Your task to perform on an android device: open the mobile data screen to see how much data has been used Image 0: 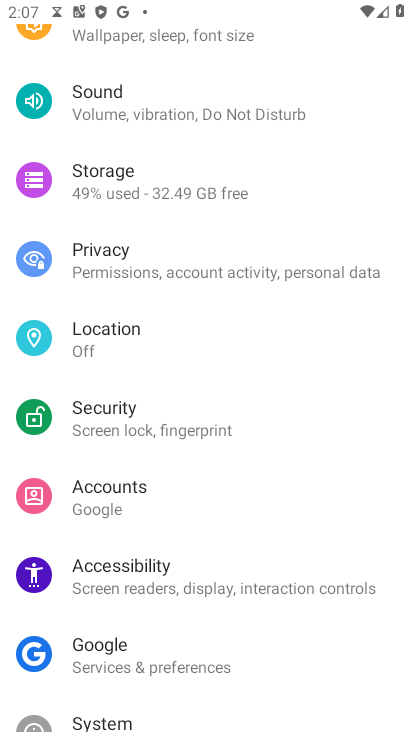
Step 0: drag from (159, 232) to (231, 589)
Your task to perform on an android device: open the mobile data screen to see how much data has been used Image 1: 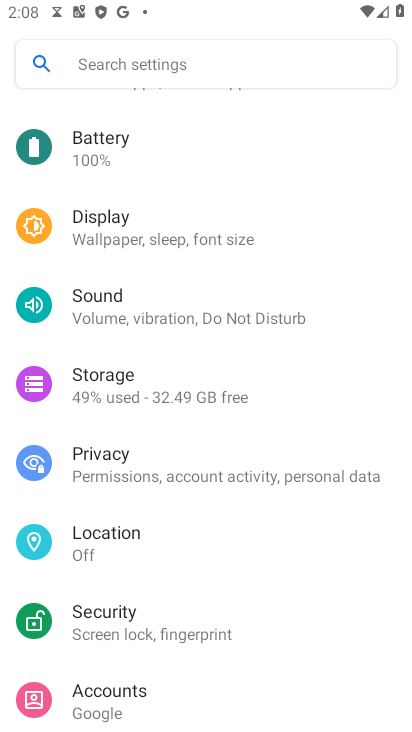
Step 1: drag from (169, 212) to (216, 565)
Your task to perform on an android device: open the mobile data screen to see how much data has been used Image 2: 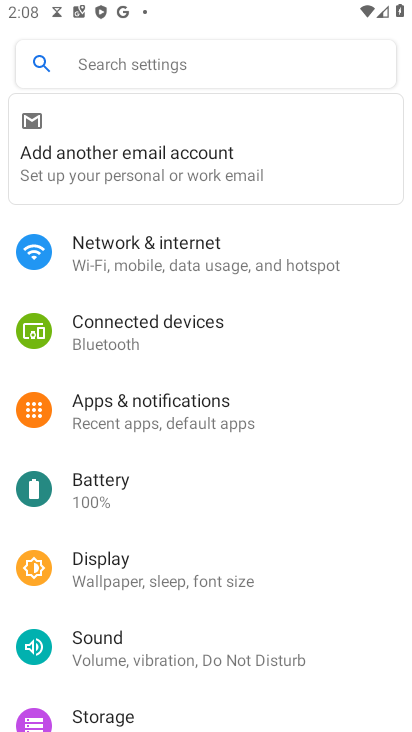
Step 2: click (147, 268)
Your task to perform on an android device: open the mobile data screen to see how much data has been used Image 3: 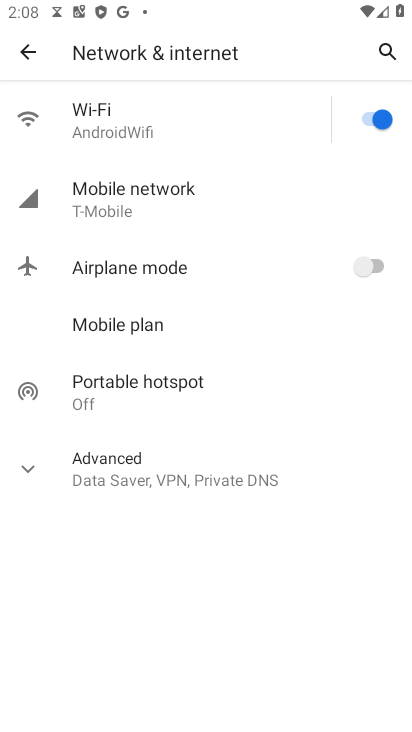
Step 3: click (133, 209)
Your task to perform on an android device: open the mobile data screen to see how much data has been used Image 4: 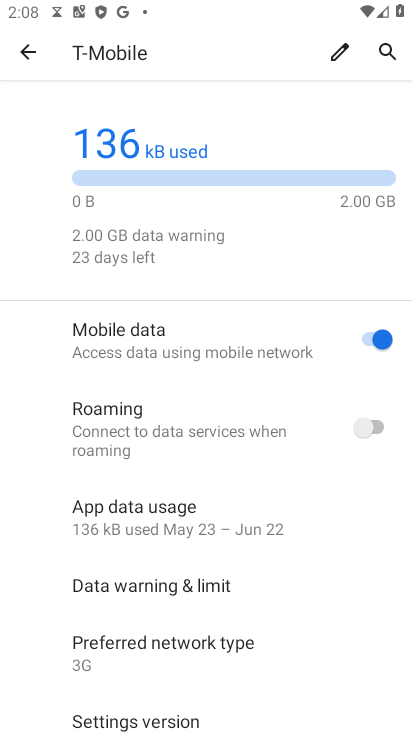
Step 4: task complete